Your task to perform on an android device: turn off smart reply in the gmail app Image 0: 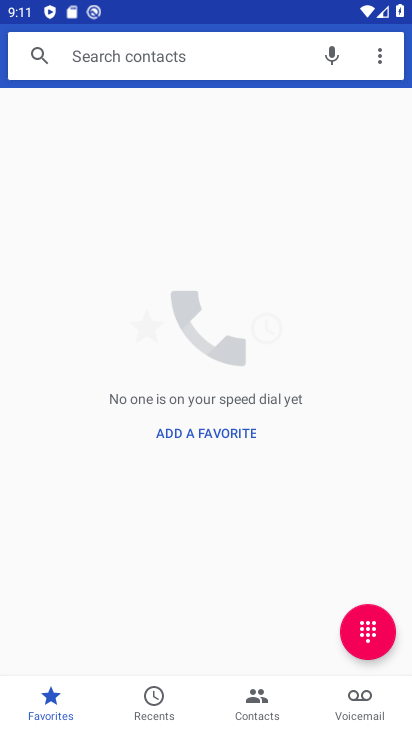
Step 0: press back button
Your task to perform on an android device: turn off smart reply in the gmail app Image 1: 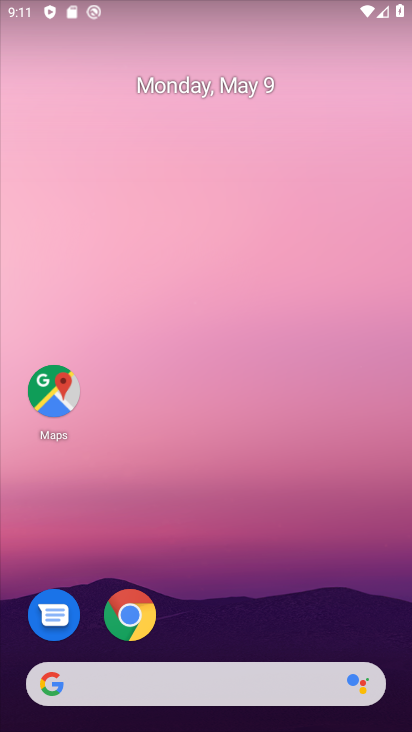
Step 1: drag from (194, 632) to (305, 7)
Your task to perform on an android device: turn off smart reply in the gmail app Image 2: 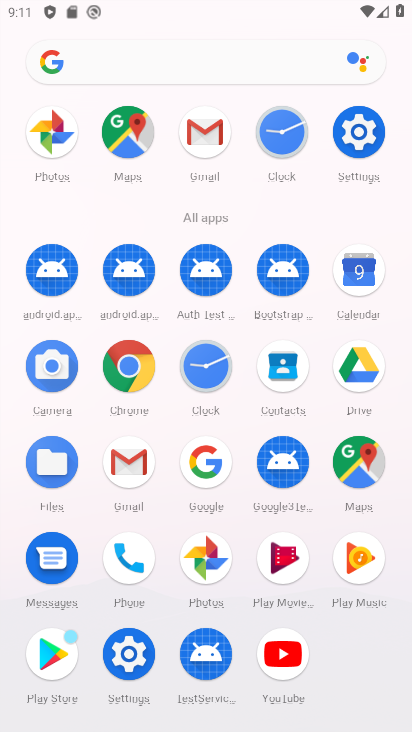
Step 2: click (136, 474)
Your task to perform on an android device: turn off smart reply in the gmail app Image 3: 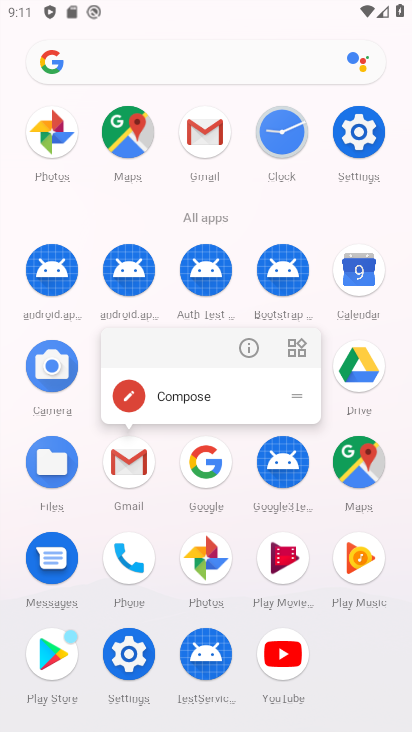
Step 3: click (132, 449)
Your task to perform on an android device: turn off smart reply in the gmail app Image 4: 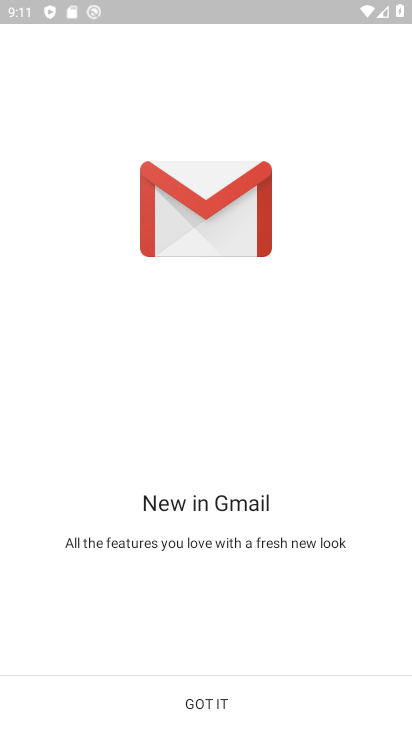
Step 4: click (216, 705)
Your task to perform on an android device: turn off smart reply in the gmail app Image 5: 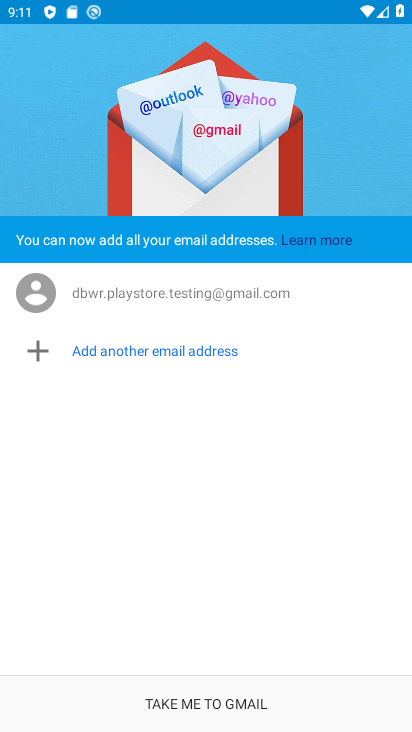
Step 5: click (217, 701)
Your task to perform on an android device: turn off smart reply in the gmail app Image 6: 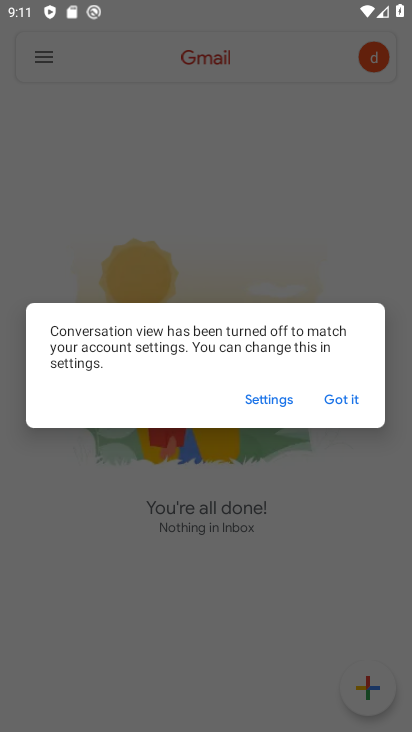
Step 6: click (326, 405)
Your task to perform on an android device: turn off smart reply in the gmail app Image 7: 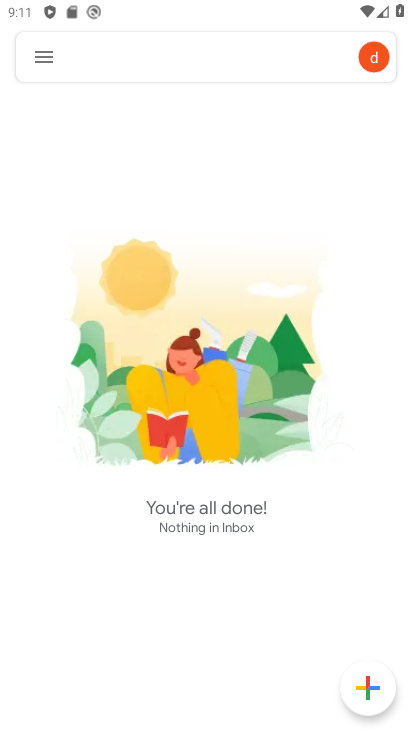
Step 7: click (53, 74)
Your task to perform on an android device: turn off smart reply in the gmail app Image 8: 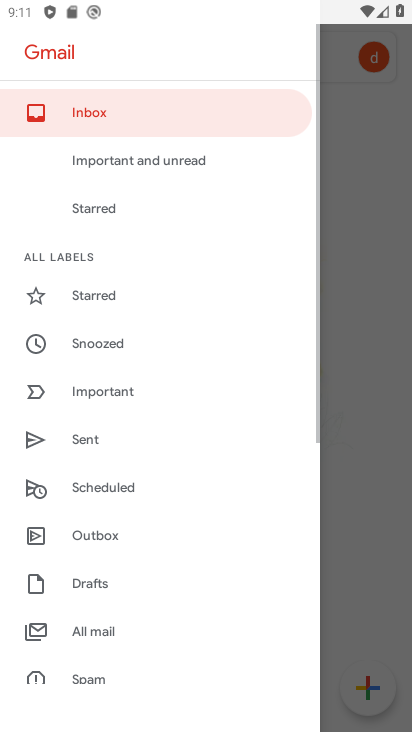
Step 8: drag from (192, 692) to (299, 146)
Your task to perform on an android device: turn off smart reply in the gmail app Image 9: 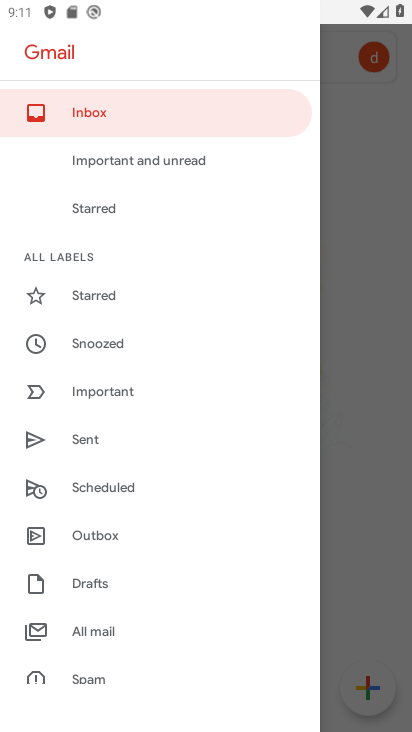
Step 9: drag from (75, 621) to (189, 175)
Your task to perform on an android device: turn off smart reply in the gmail app Image 10: 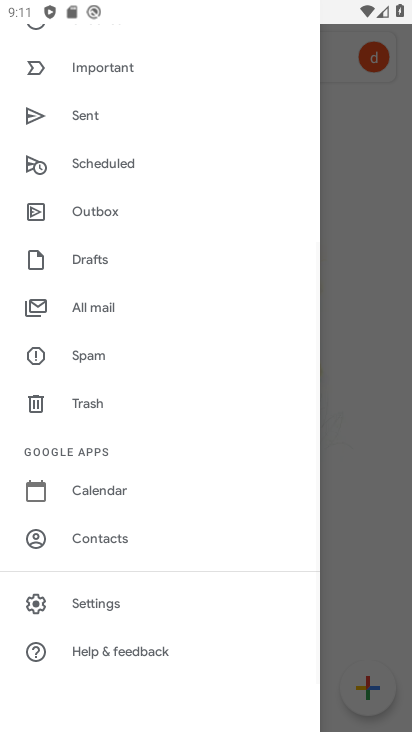
Step 10: click (117, 612)
Your task to perform on an android device: turn off smart reply in the gmail app Image 11: 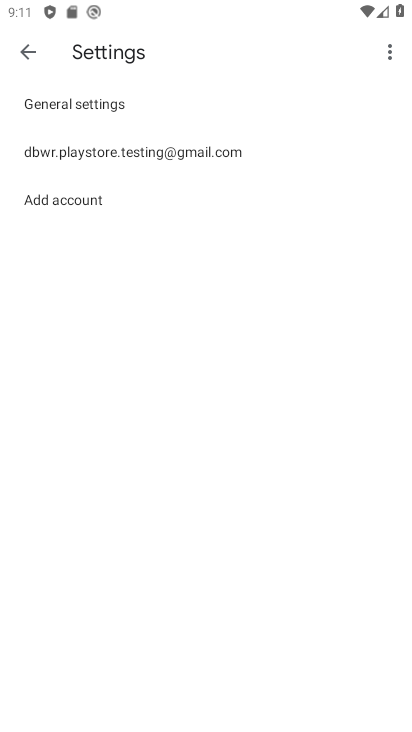
Step 11: click (256, 157)
Your task to perform on an android device: turn off smart reply in the gmail app Image 12: 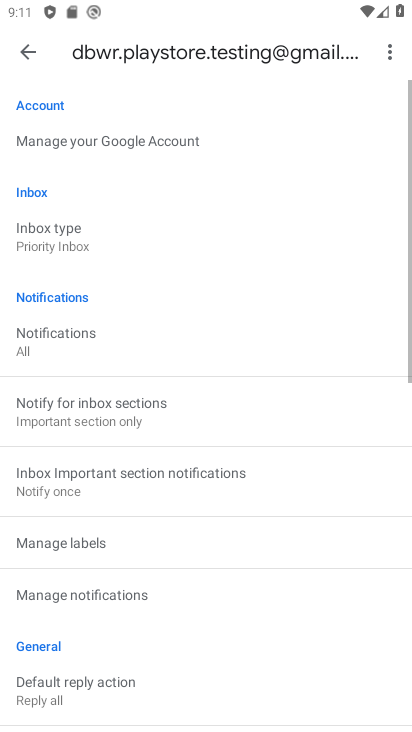
Step 12: drag from (219, 684) to (325, 58)
Your task to perform on an android device: turn off smart reply in the gmail app Image 13: 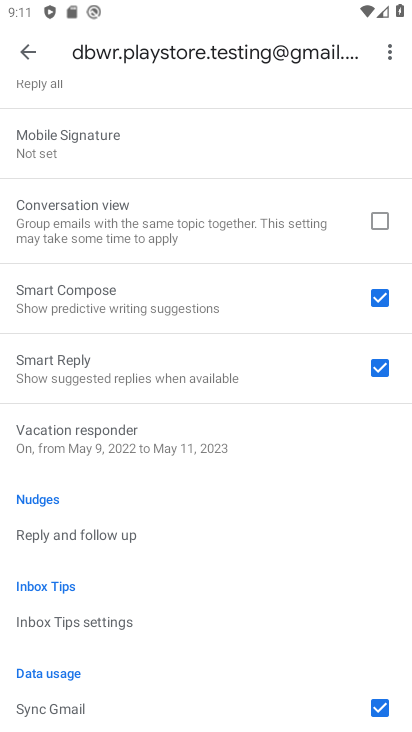
Step 13: click (383, 368)
Your task to perform on an android device: turn off smart reply in the gmail app Image 14: 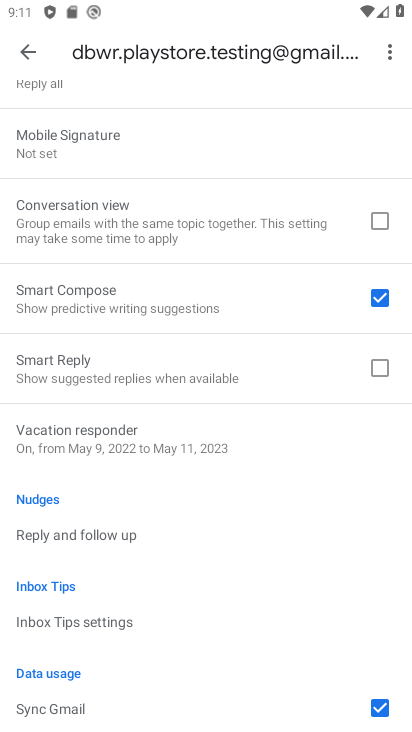
Step 14: task complete